Your task to perform on an android device: Turn off the flashlight Image 0: 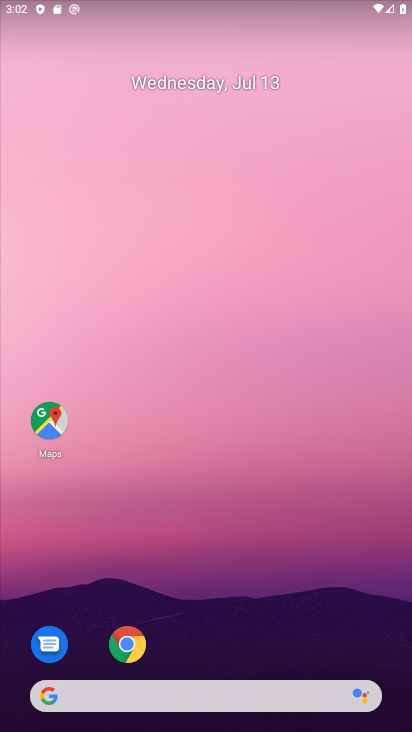
Step 0: drag from (290, 637) to (369, 0)
Your task to perform on an android device: Turn off the flashlight Image 1: 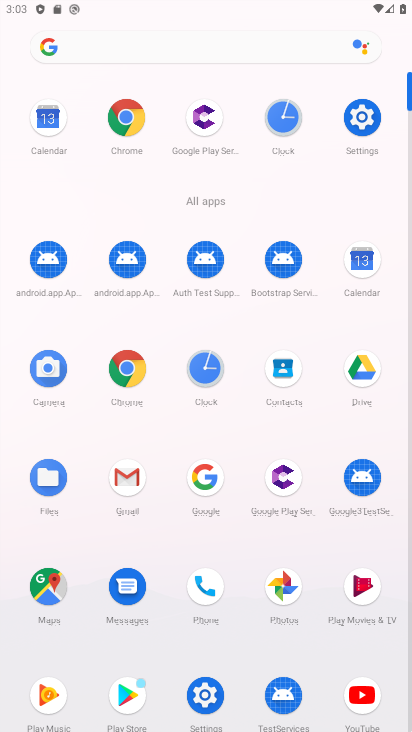
Step 1: drag from (357, 11) to (373, 386)
Your task to perform on an android device: Turn off the flashlight Image 2: 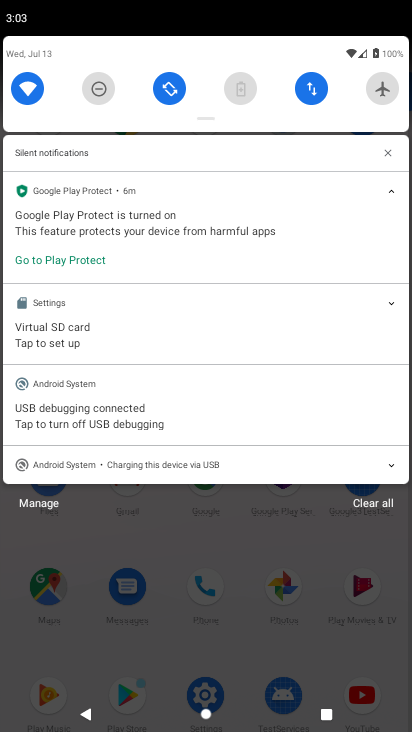
Step 2: drag from (339, 101) to (359, 515)
Your task to perform on an android device: Turn off the flashlight Image 3: 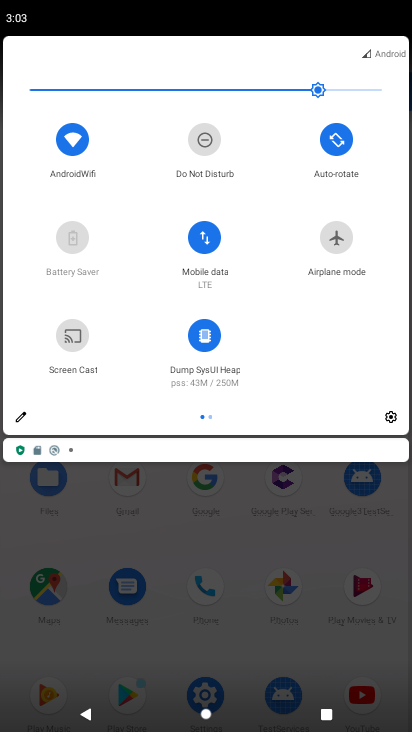
Step 3: click (21, 416)
Your task to perform on an android device: Turn off the flashlight Image 4: 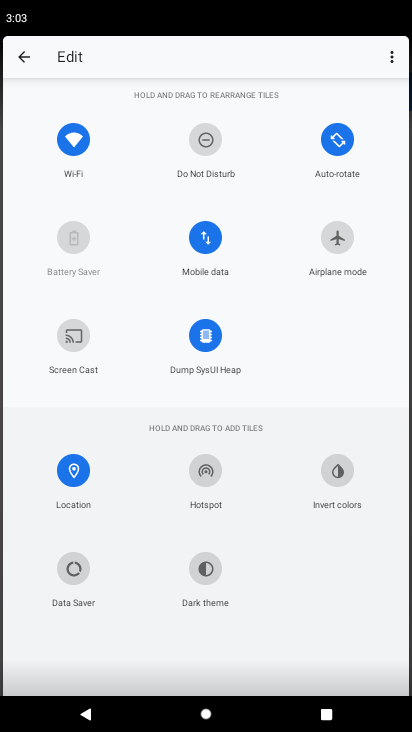
Step 4: task complete